Your task to perform on an android device: What's on my calendar tomorrow? Image 0: 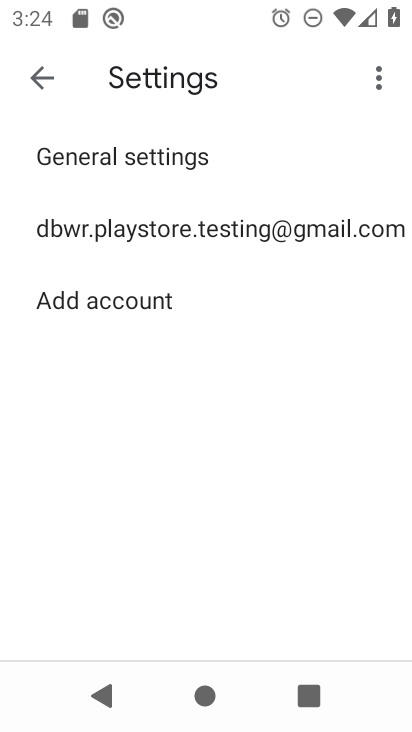
Step 0: press home button
Your task to perform on an android device: What's on my calendar tomorrow? Image 1: 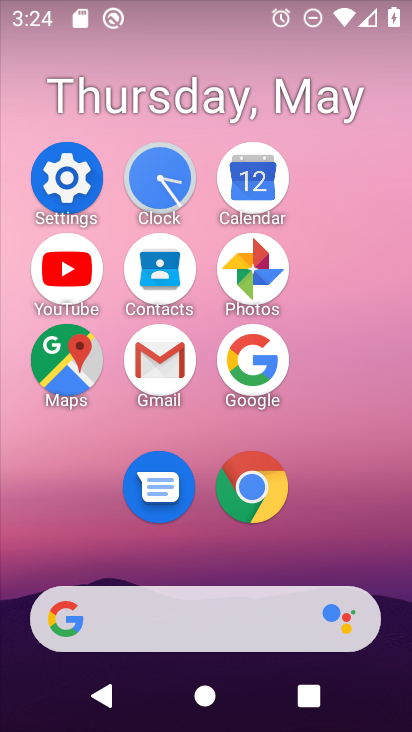
Step 1: click (241, 179)
Your task to perform on an android device: What's on my calendar tomorrow? Image 2: 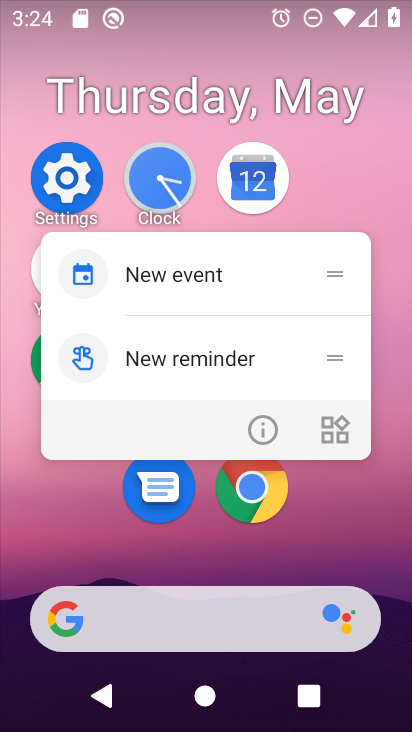
Step 2: click (261, 169)
Your task to perform on an android device: What's on my calendar tomorrow? Image 3: 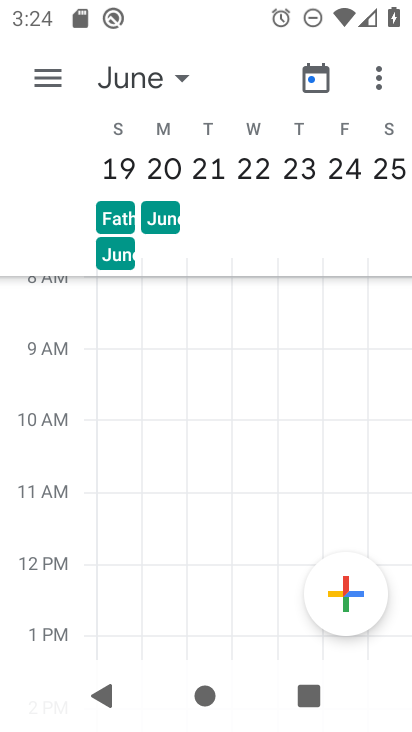
Step 3: click (169, 78)
Your task to perform on an android device: What's on my calendar tomorrow? Image 4: 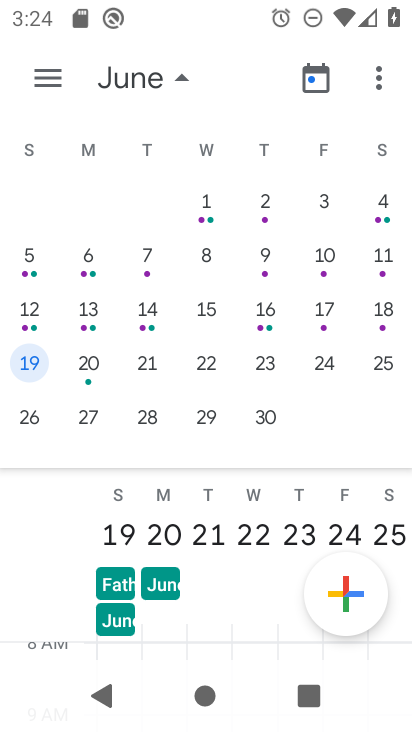
Step 4: drag from (25, 289) to (406, 379)
Your task to perform on an android device: What's on my calendar tomorrow? Image 5: 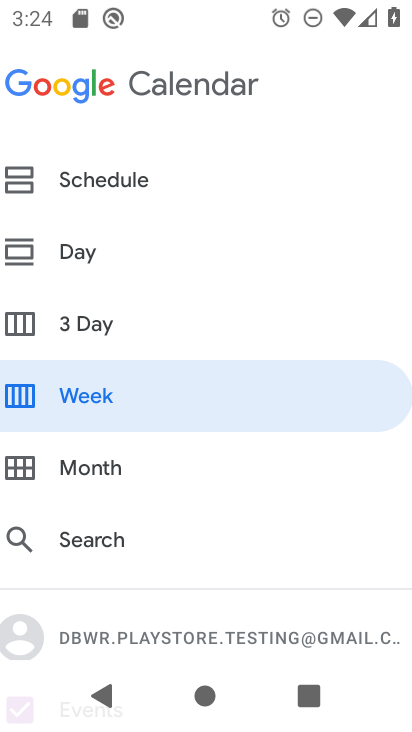
Step 5: click (385, 411)
Your task to perform on an android device: What's on my calendar tomorrow? Image 6: 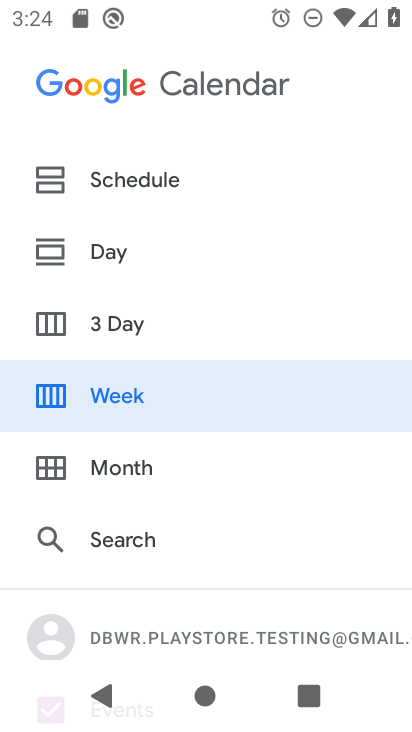
Step 6: click (159, 382)
Your task to perform on an android device: What's on my calendar tomorrow? Image 7: 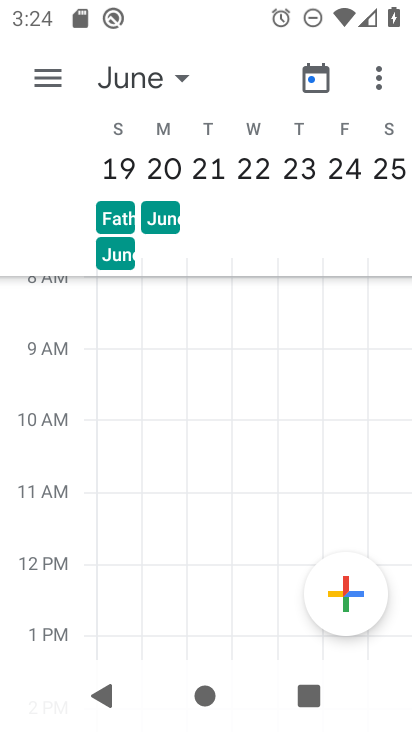
Step 7: click (150, 84)
Your task to perform on an android device: What's on my calendar tomorrow? Image 8: 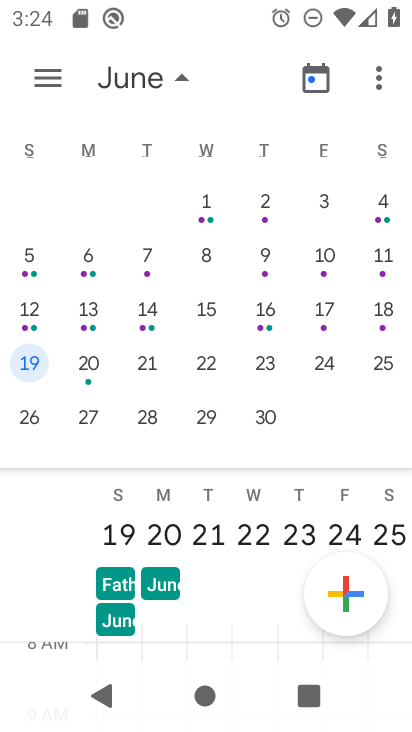
Step 8: drag from (37, 272) to (395, 296)
Your task to perform on an android device: What's on my calendar tomorrow? Image 9: 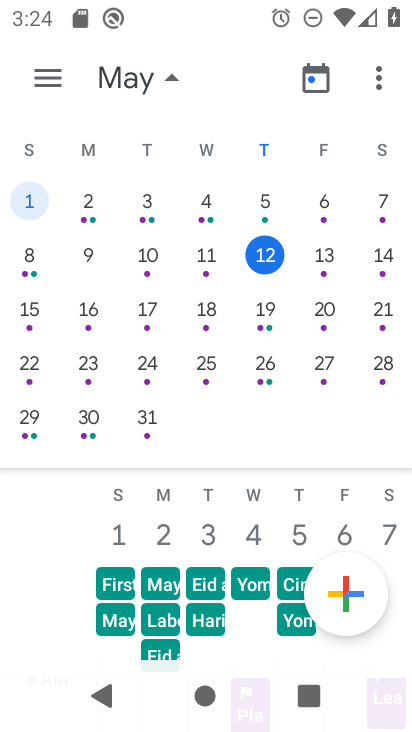
Step 9: click (328, 249)
Your task to perform on an android device: What's on my calendar tomorrow? Image 10: 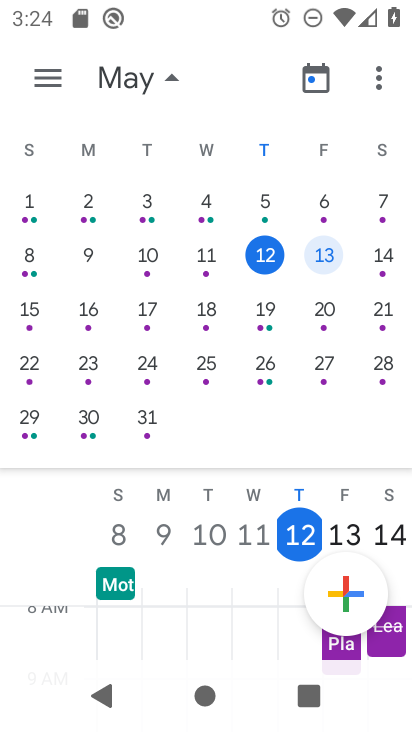
Step 10: click (345, 540)
Your task to perform on an android device: What's on my calendar tomorrow? Image 11: 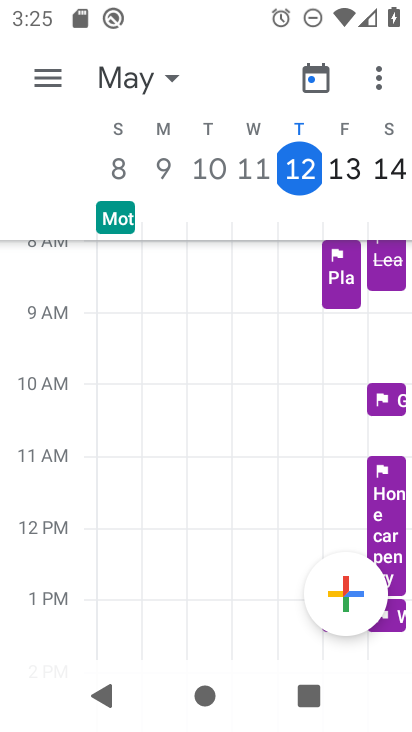
Step 11: task complete